Your task to perform on an android device: Go to eBay Image 0: 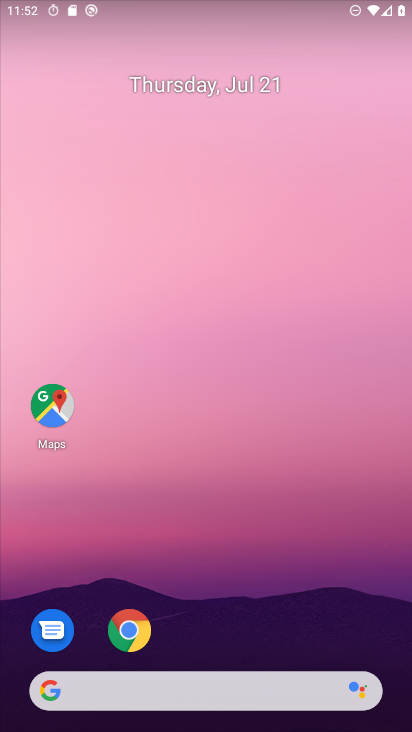
Step 0: click (48, 691)
Your task to perform on an android device: Go to eBay Image 1: 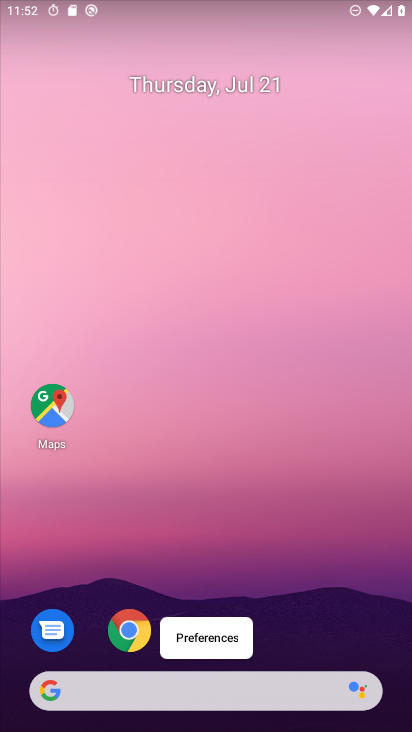
Step 1: click (49, 683)
Your task to perform on an android device: Go to eBay Image 2: 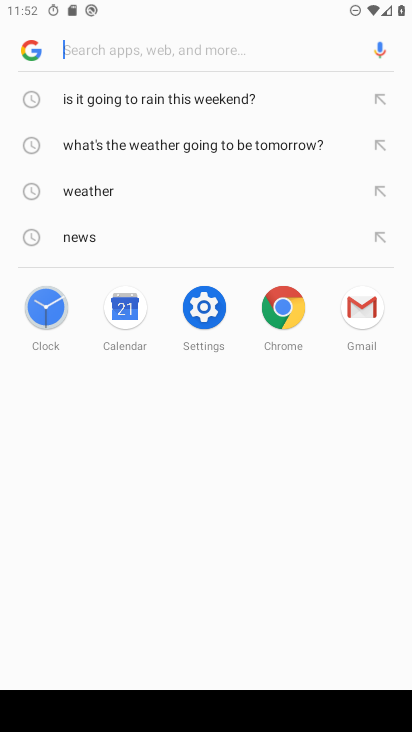
Step 2: type "eBay"
Your task to perform on an android device: Go to eBay Image 3: 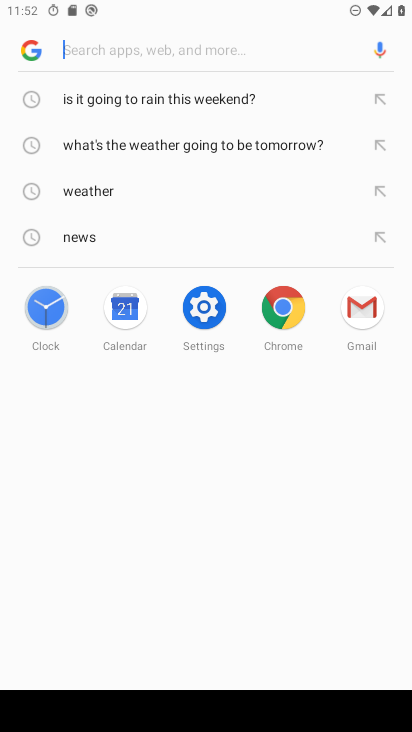
Step 3: click (84, 49)
Your task to perform on an android device: Go to eBay Image 4: 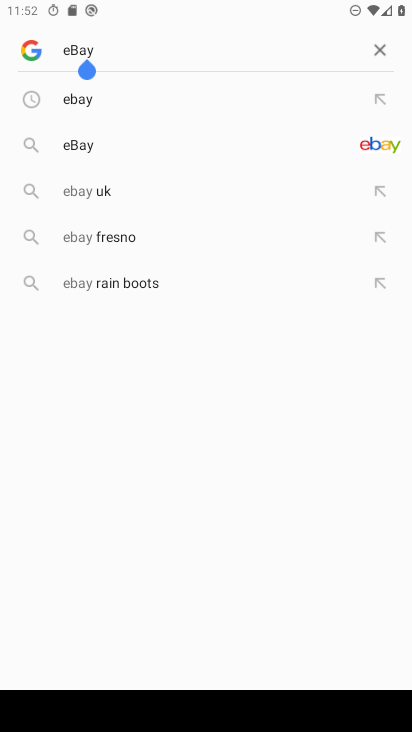
Step 4: press enter
Your task to perform on an android device: Go to eBay Image 5: 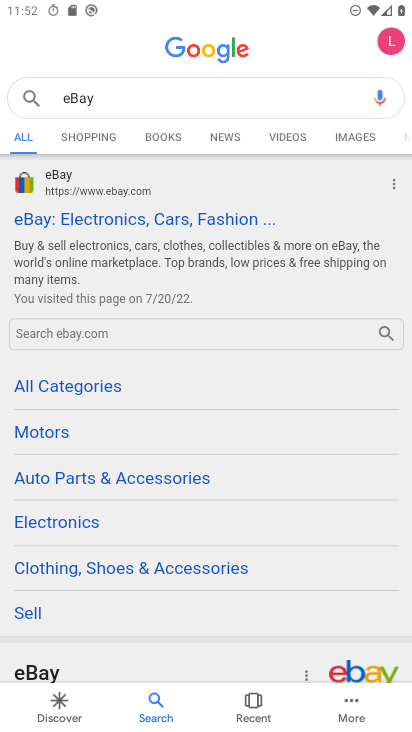
Step 5: click (49, 216)
Your task to perform on an android device: Go to eBay Image 6: 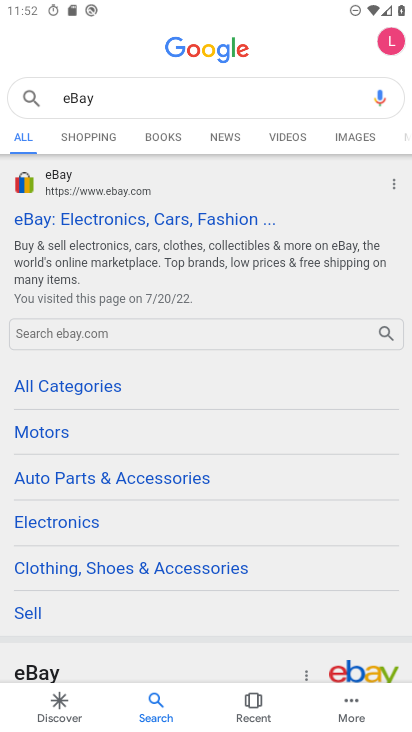
Step 6: click (37, 181)
Your task to perform on an android device: Go to eBay Image 7: 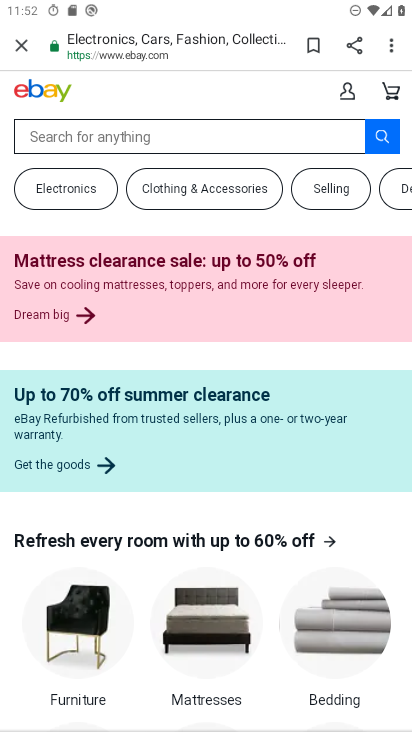
Step 7: task complete